Your task to perform on an android device: remove spam from my inbox in the gmail app Image 0: 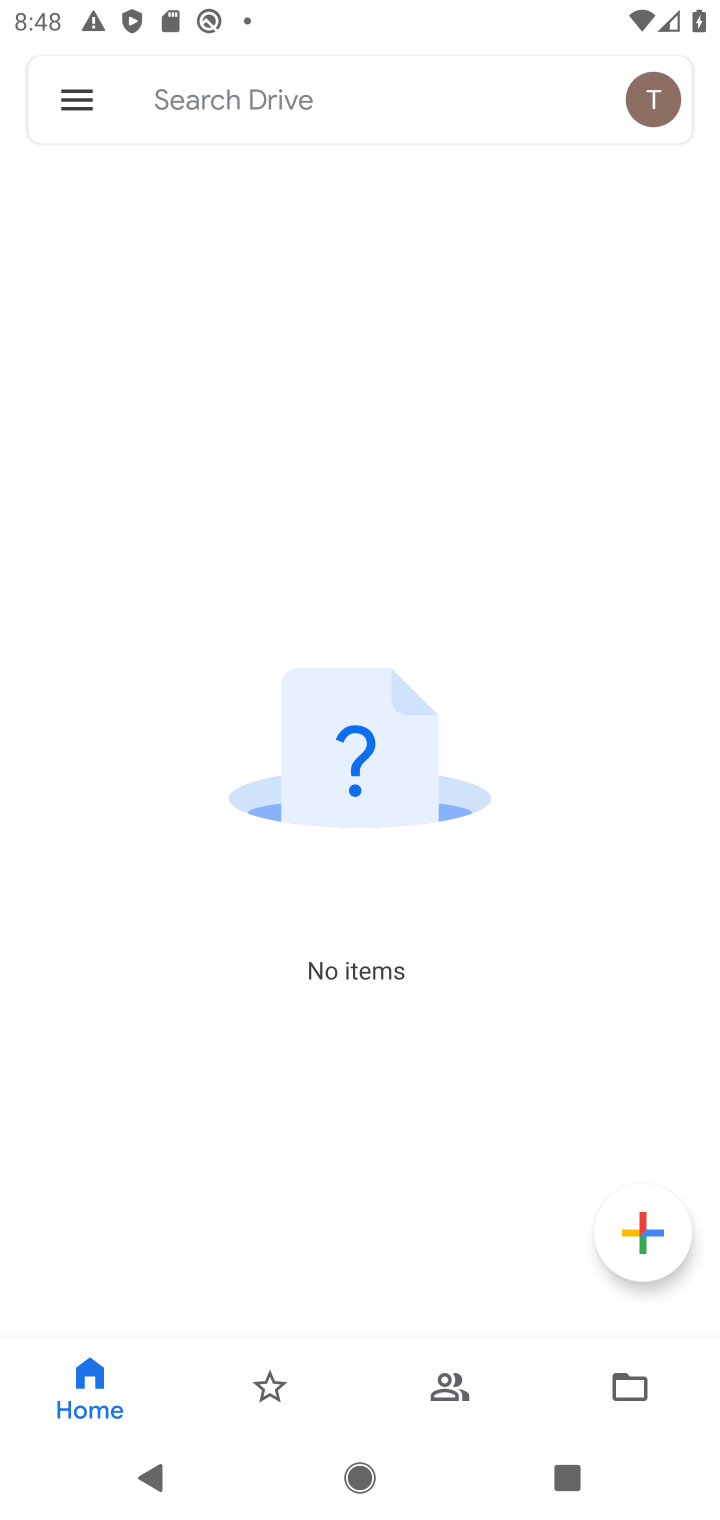
Step 0: press home button
Your task to perform on an android device: remove spam from my inbox in the gmail app Image 1: 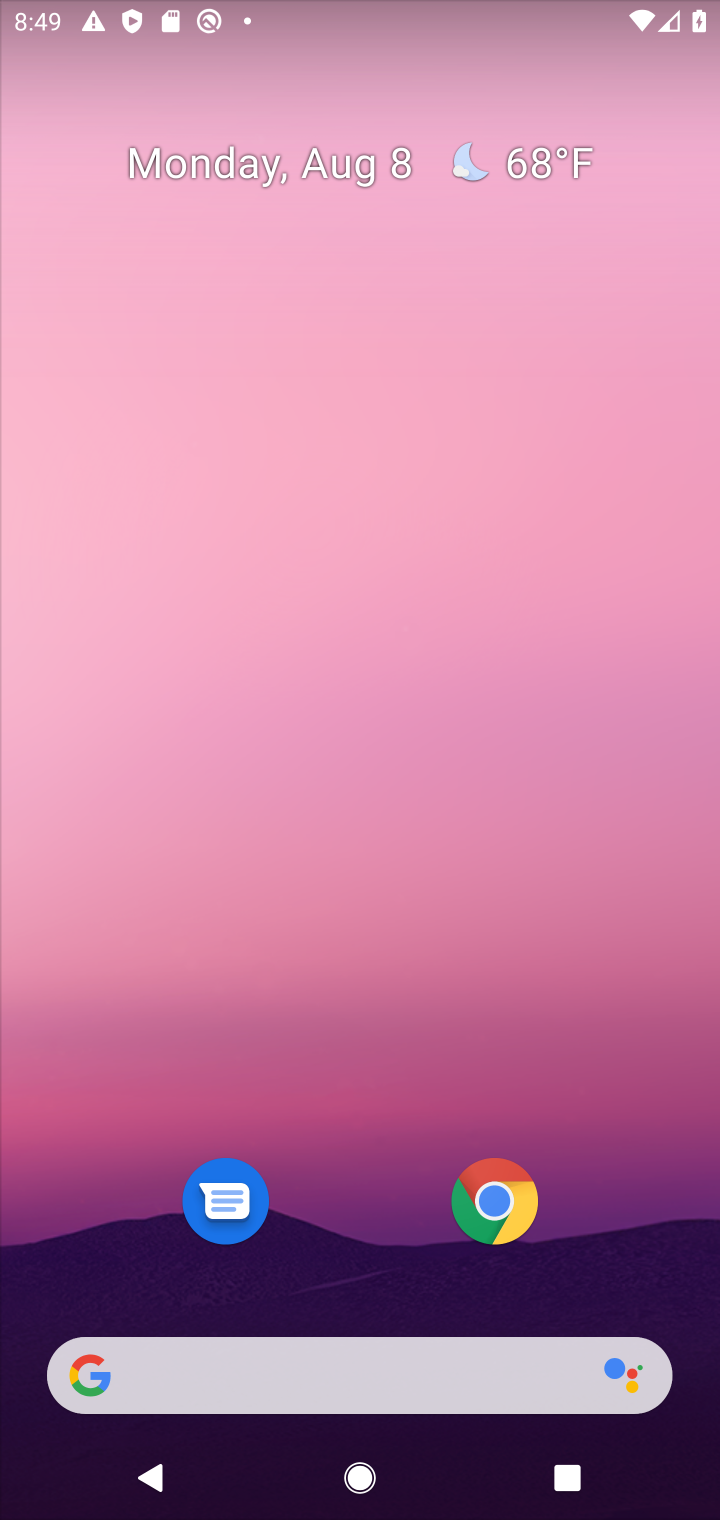
Step 1: drag from (644, 1252) to (655, 148)
Your task to perform on an android device: remove spam from my inbox in the gmail app Image 2: 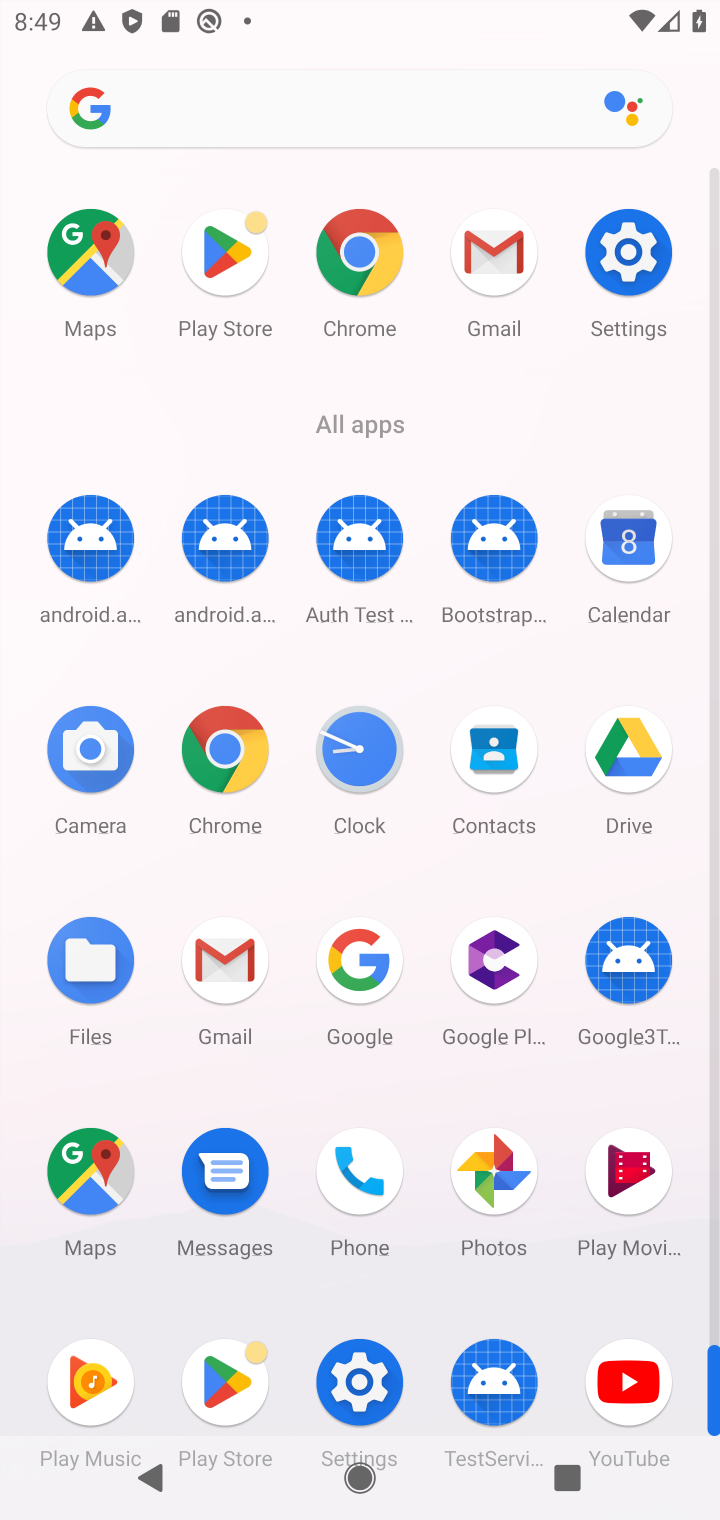
Step 2: click (495, 268)
Your task to perform on an android device: remove spam from my inbox in the gmail app Image 3: 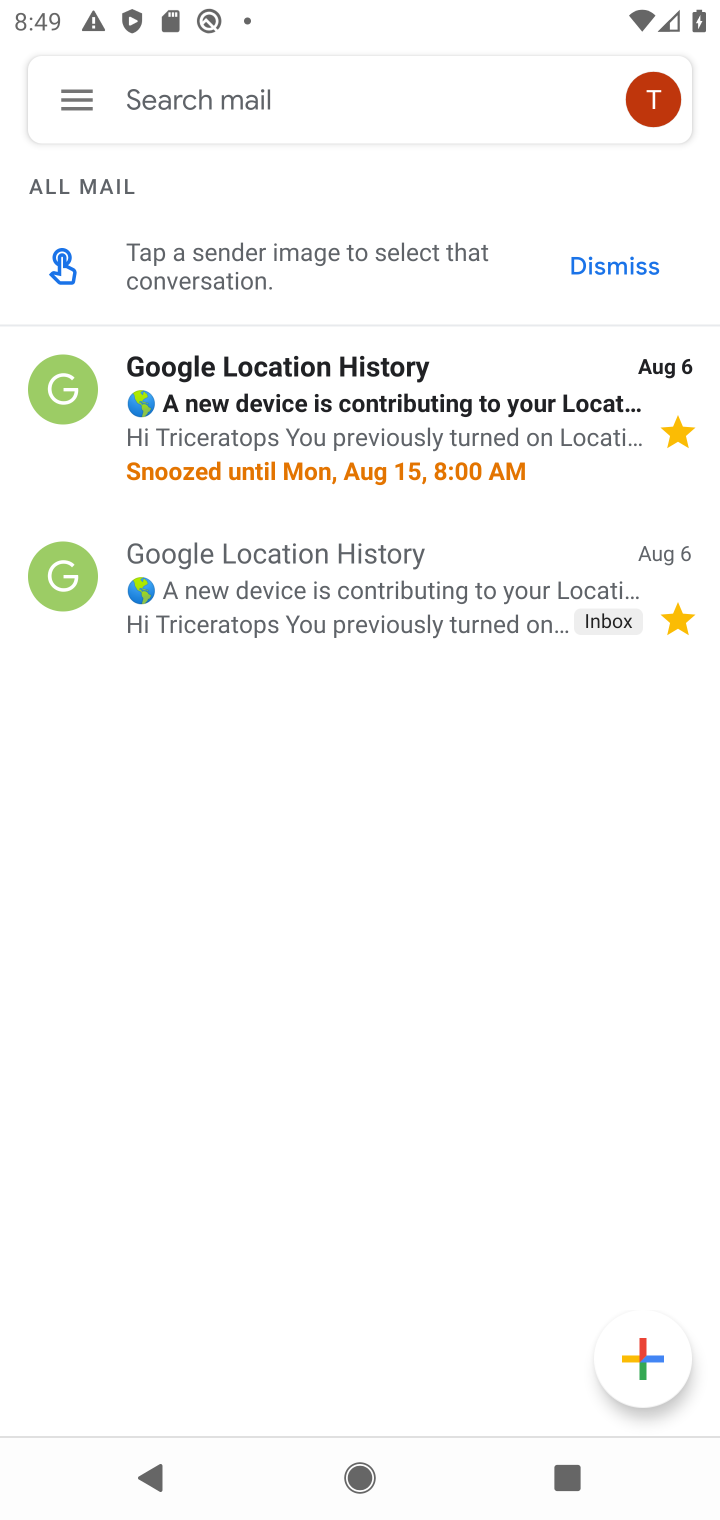
Step 3: click (76, 102)
Your task to perform on an android device: remove spam from my inbox in the gmail app Image 4: 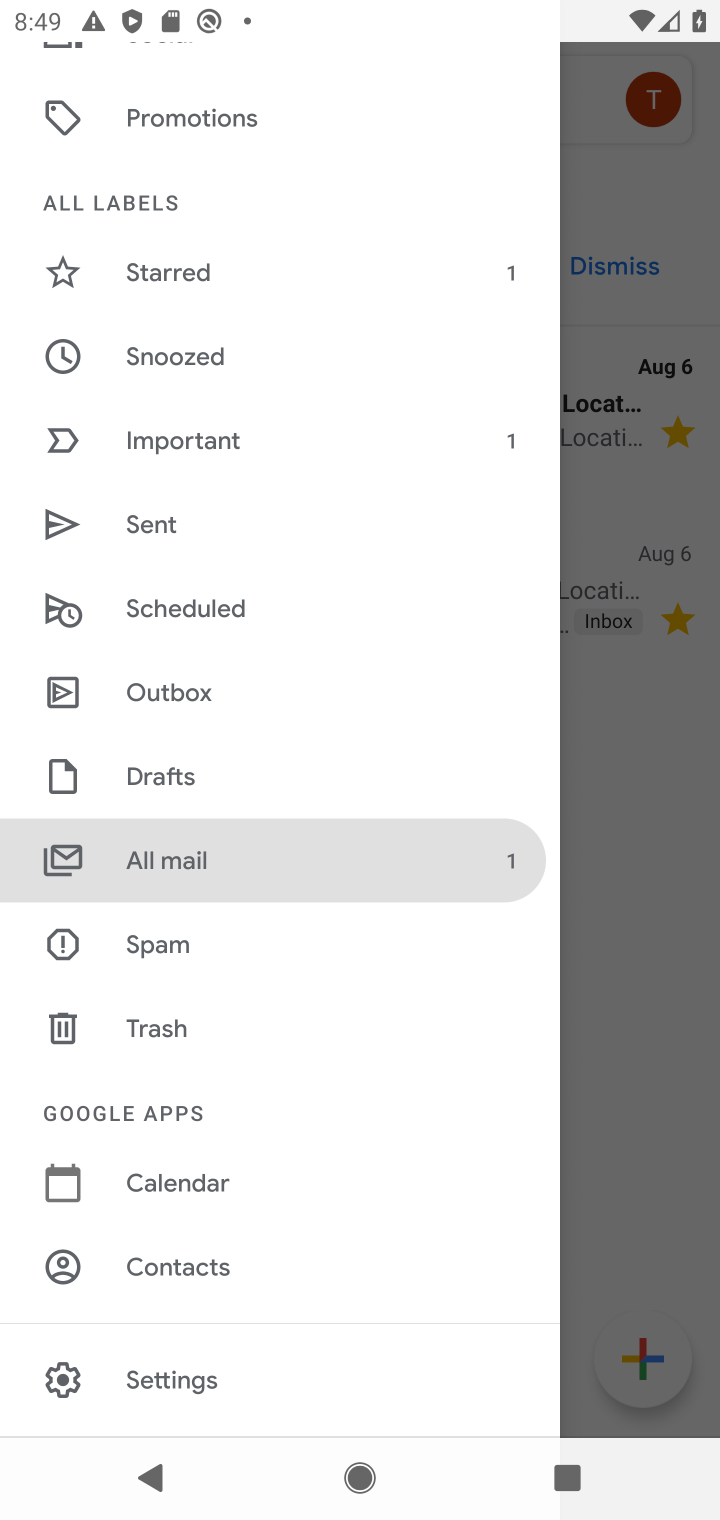
Step 4: click (214, 932)
Your task to perform on an android device: remove spam from my inbox in the gmail app Image 5: 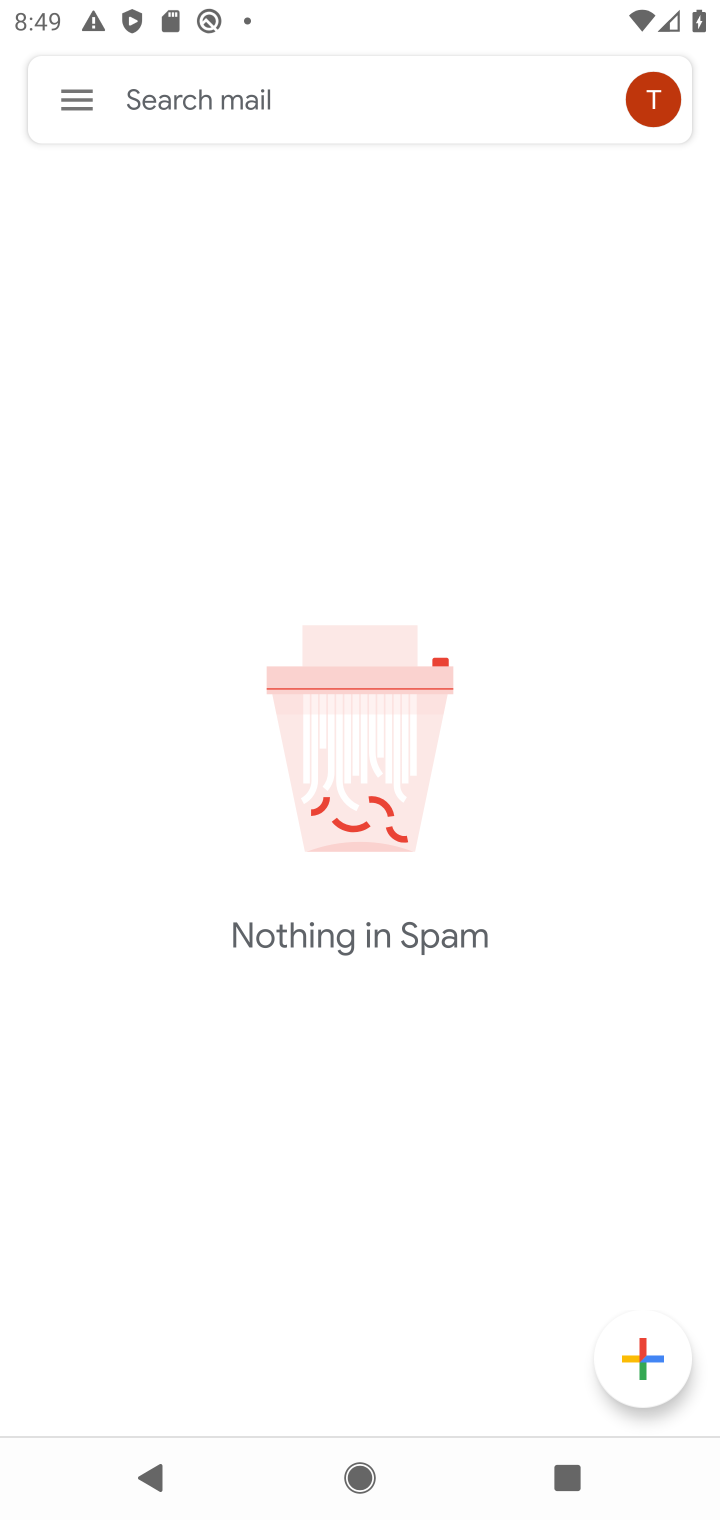
Step 5: task complete